Your task to perform on an android device: Open calendar and show me the second week of next month Image 0: 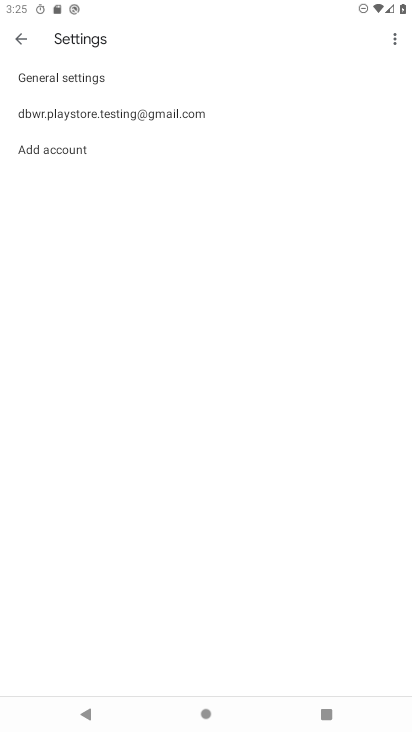
Step 0: press home button
Your task to perform on an android device: Open calendar and show me the second week of next month Image 1: 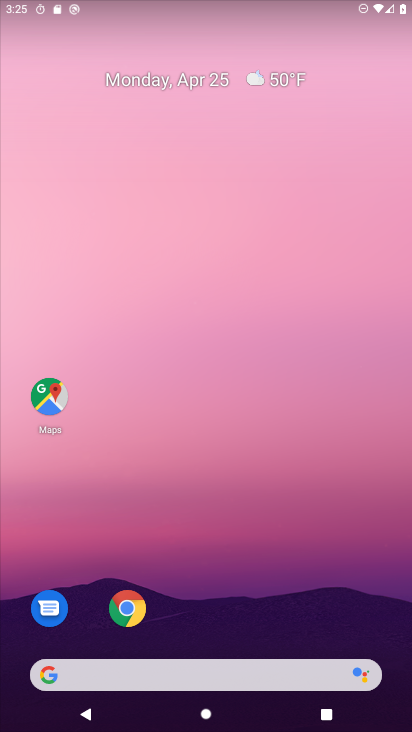
Step 1: drag from (240, 609) to (256, 122)
Your task to perform on an android device: Open calendar and show me the second week of next month Image 2: 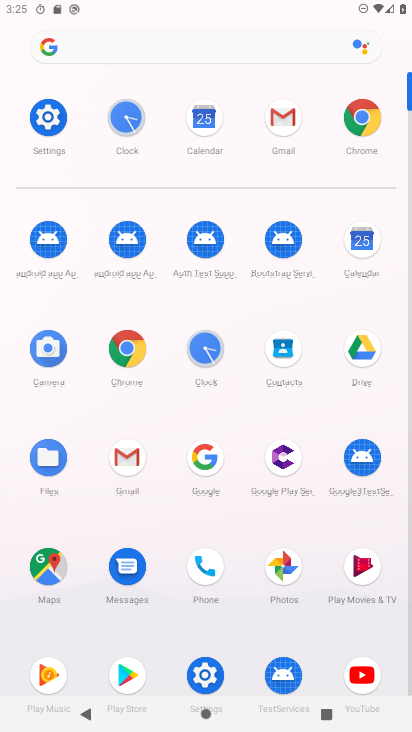
Step 2: click (200, 136)
Your task to perform on an android device: Open calendar and show me the second week of next month Image 3: 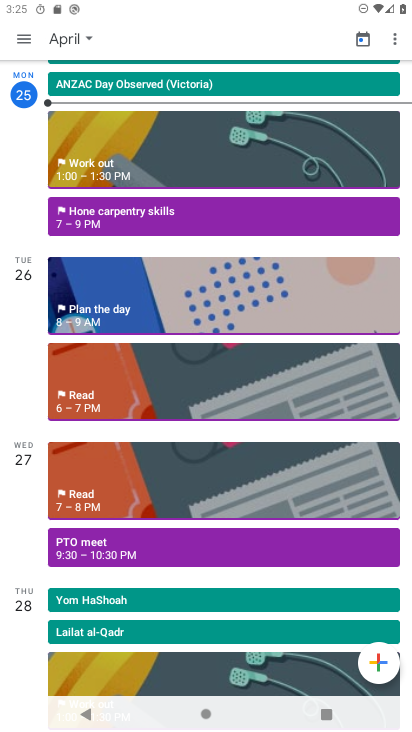
Step 3: click (70, 39)
Your task to perform on an android device: Open calendar and show me the second week of next month Image 4: 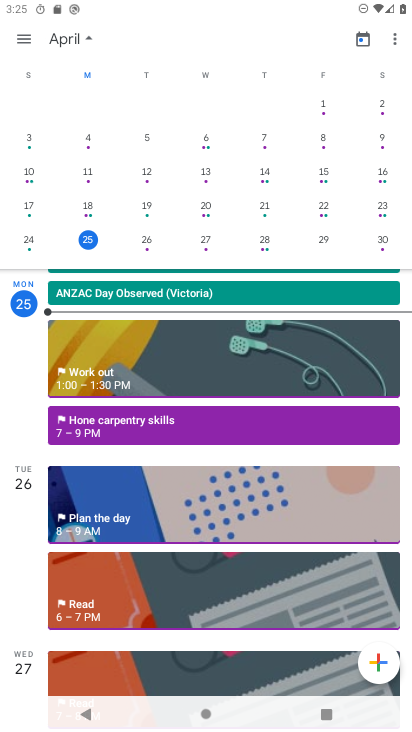
Step 4: drag from (347, 147) to (1, 138)
Your task to perform on an android device: Open calendar and show me the second week of next month Image 5: 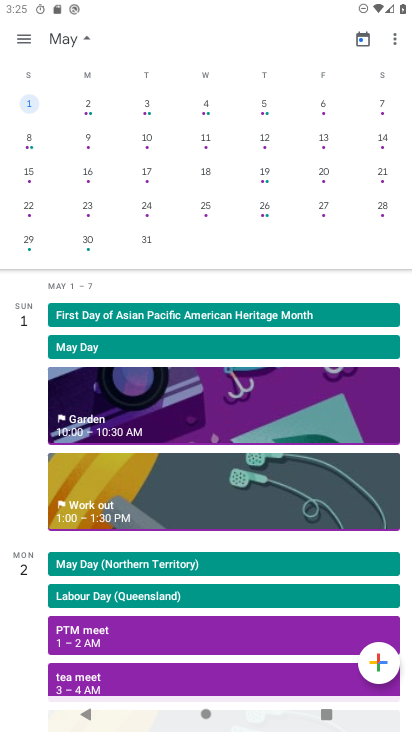
Step 5: click (86, 146)
Your task to perform on an android device: Open calendar and show me the second week of next month Image 6: 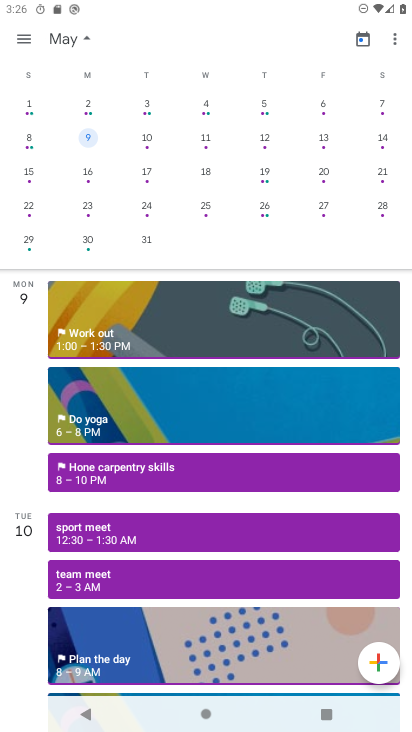
Step 6: task complete